Your task to perform on an android device: snooze an email in the gmail app Image 0: 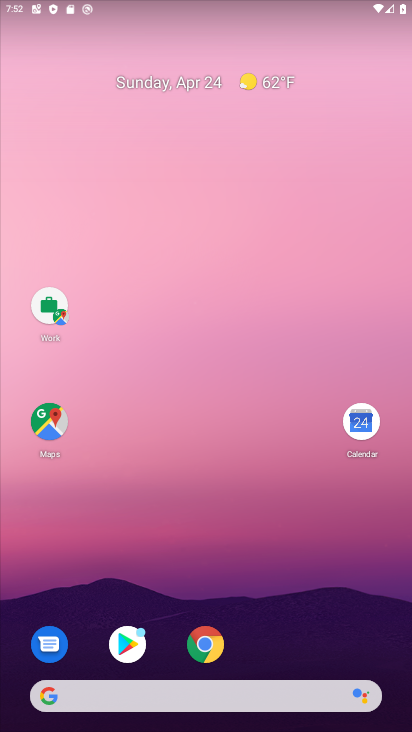
Step 0: click (197, 90)
Your task to perform on an android device: snooze an email in the gmail app Image 1: 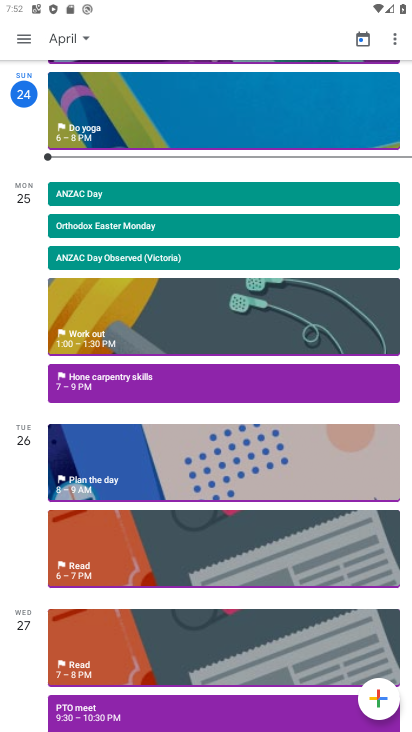
Step 1: press home button
Your task to perform on an android device: snooze an email in the gmail app Image 2: 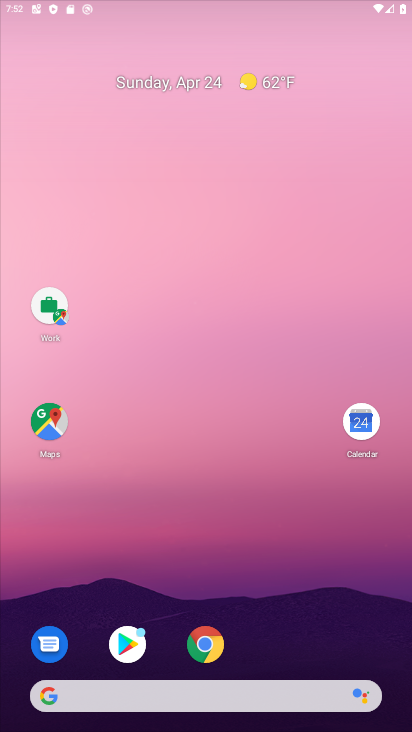
Step 2: press home button
Your task to perform on an android device: snooze an email in the gmail app Image 3: 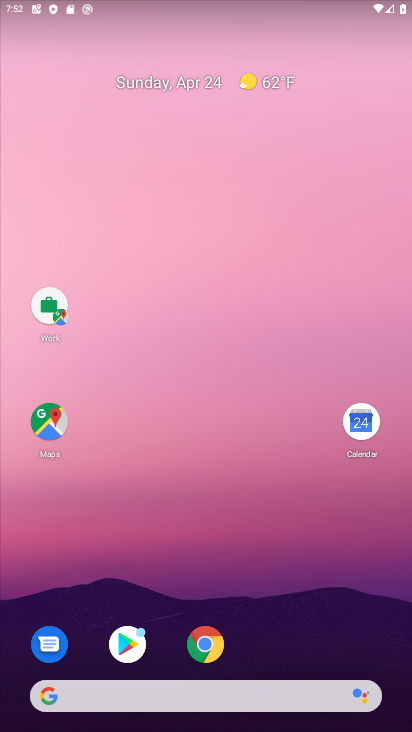
Step 3: drag from (291, 670) to (246, 163)
Your task to perform on an android device: snooze an email in the gmail app Image 4: 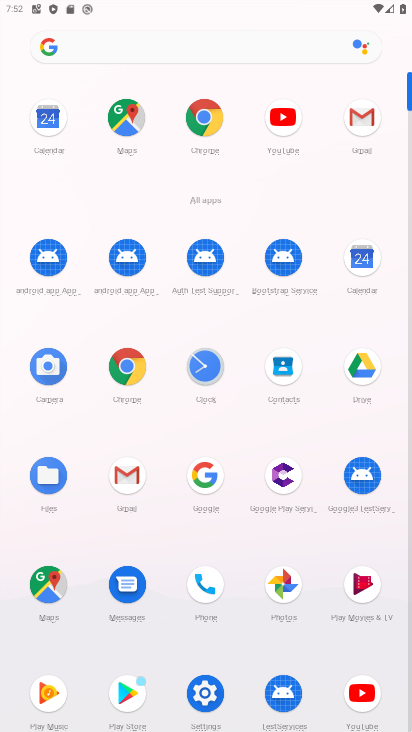
Step 4: click (119, 473)
Your task to perform on an android device: snooze an email in the gmail app Image 5: 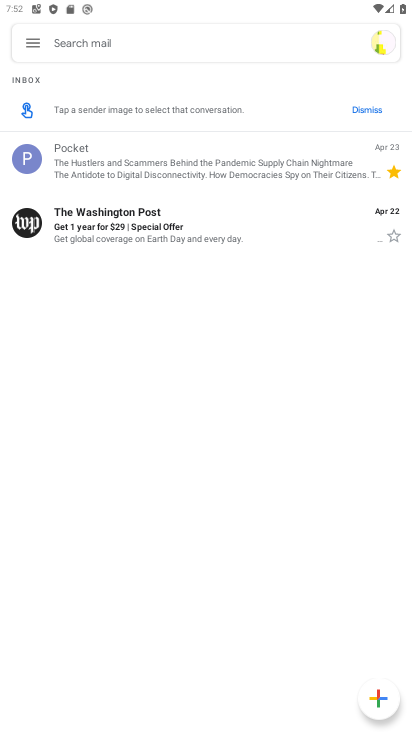
Step 5: click (194, 158)
Your task to perform on an android device: snooze an email in the gmail app Image 6: 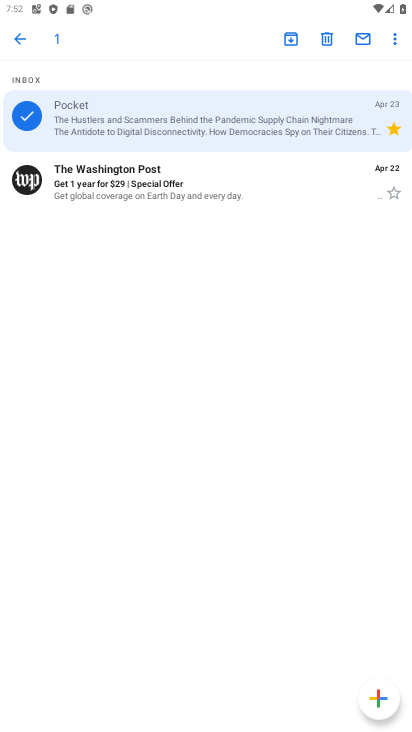
Step 6: click (393, 39)
Your task to perform on an android device: snooze an email in the gmail app Image 7: 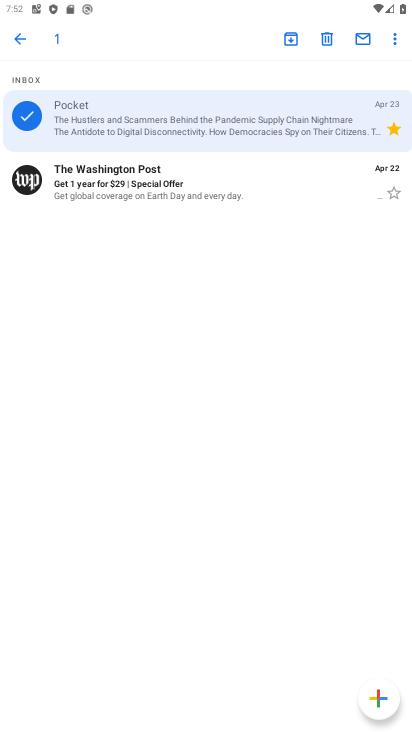
Step 7: click (396, 30)
Your task to perform on an android device: snooze an email in the gmail app Image 8: 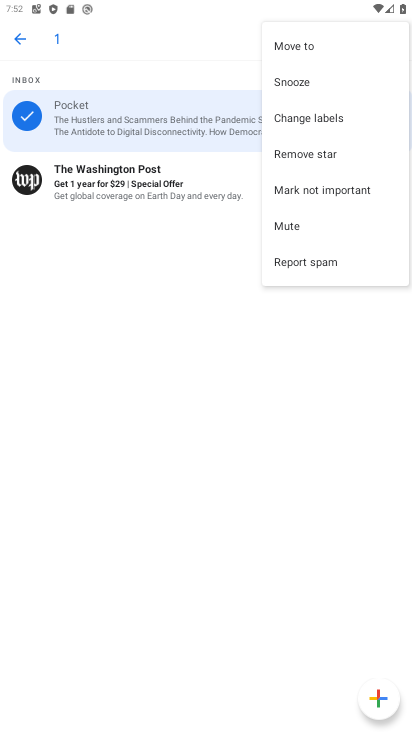
Step 8: click (286, 75)
Your task to perform on an android device: snooze an email in the gmail app Image 9: 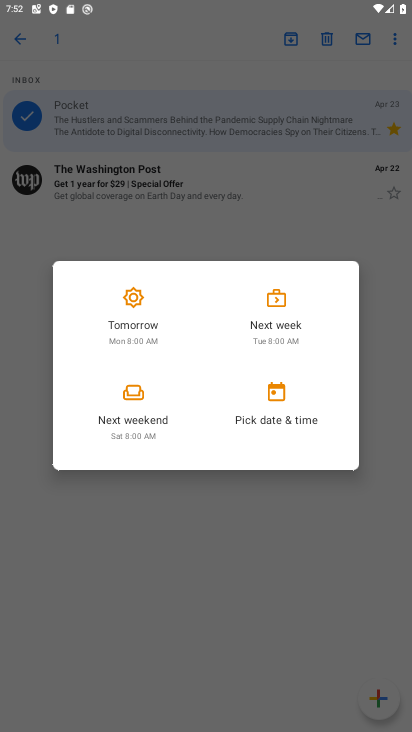
Step 9: click (126, 404)
Your task to perform on an android device: snooze an email in the gmail app Image 10: 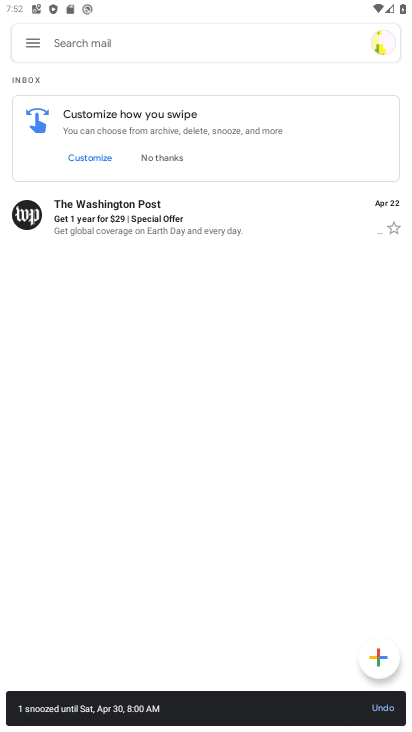
Step 10: task complete